Your task to perform on an android device: toggle show notifications on the lock screen Image 0: 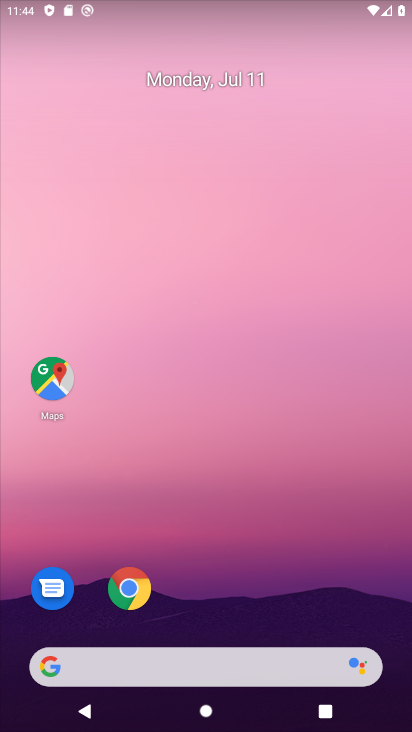
Step 0: press home button
Your task to perform on an android device: toggle show notifications on the lock screen Image 1: 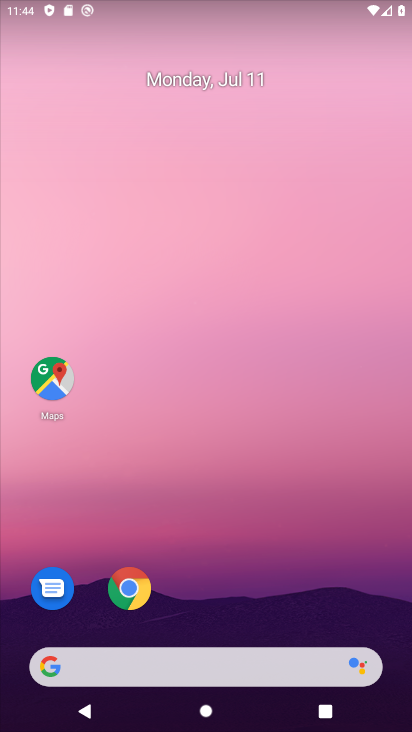
Step 1: drag from (307, 596) to (239, 140)
Your task to perform on an android device: toggle show notifications on the lock screen Image 2: 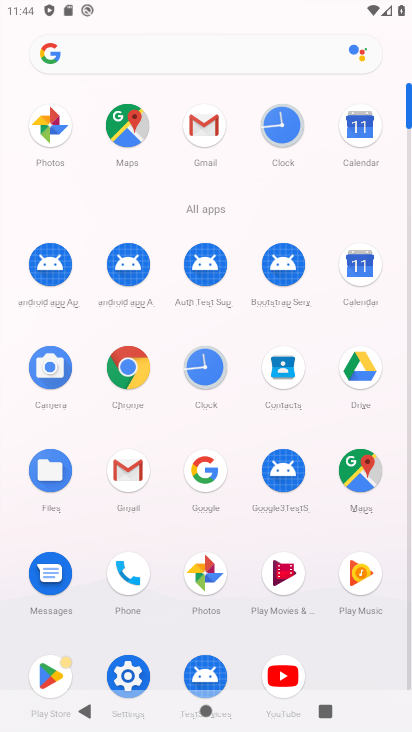
Step 2: click (137, 667)
Your task to perform on an android device: toggle show notifications on the lock screen Image 3: 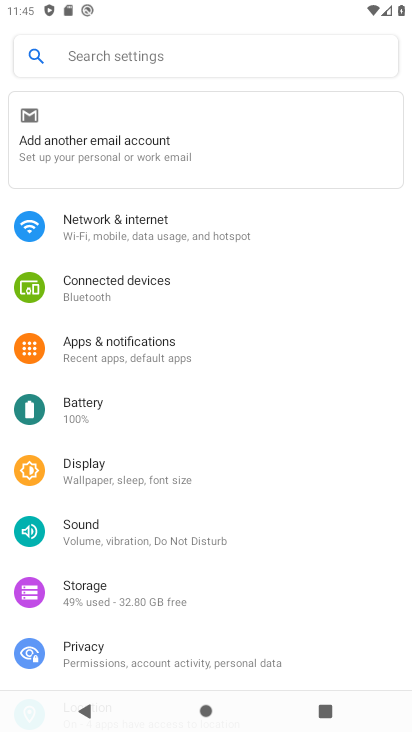
Step 3: click (140, 341)
Your task to perform on an android device: toggle show notifications on the lock screen Image 4: 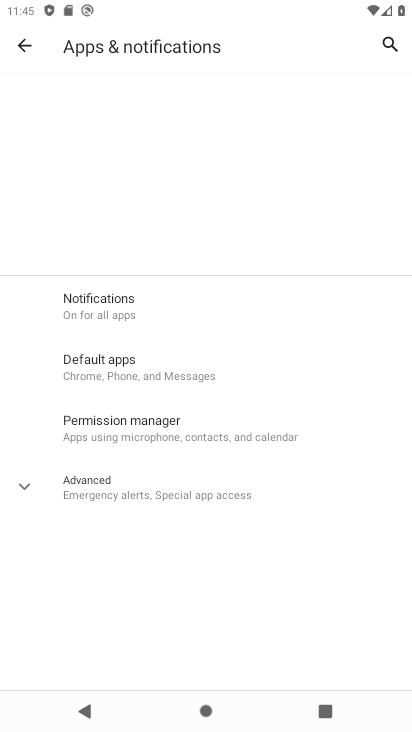
Step 4: click (110, 307)
Your task to perform on an android device: toggle show notifications on the lock screen Image 5: 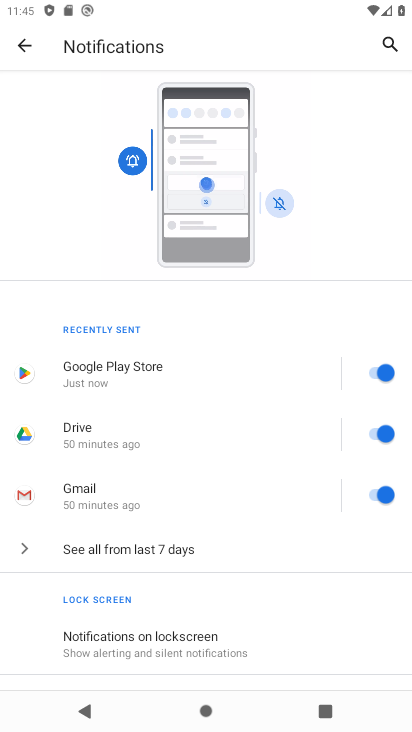
Step 5: click (199, 644)
Your task to perform on an android device: toggle show notifications on the lock screen Image 6: 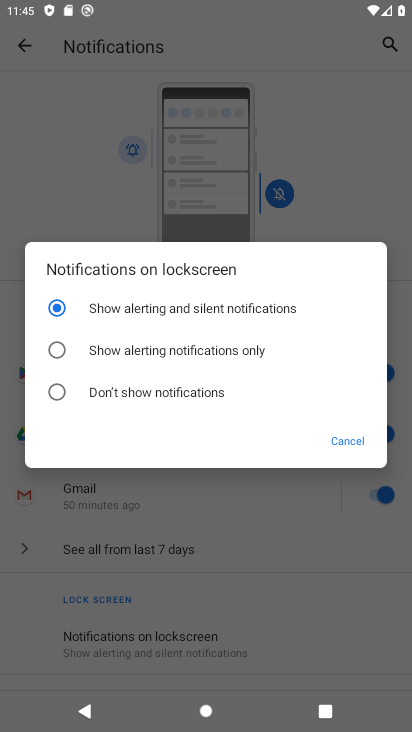
Step 6: click (184, 345)
Your task to perform on an android device: toggle show notifications on the lock screen Image 7: 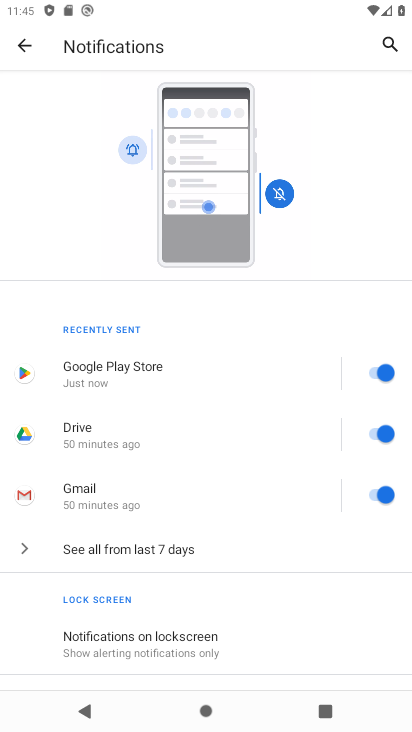
Step 7: task complete